Your task to perform on an android device: Go to battery settings Image 0: 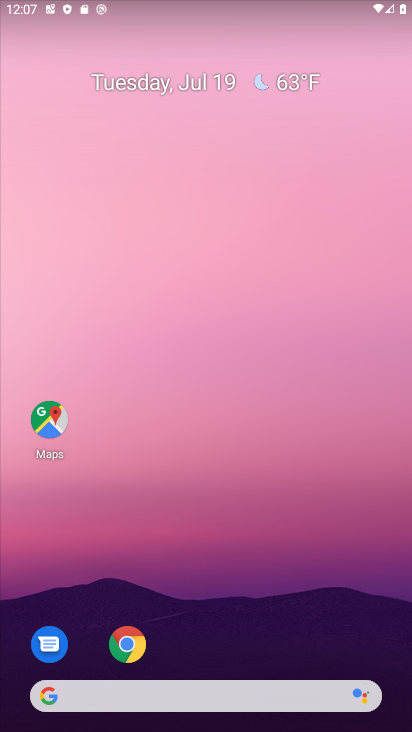
Step 0: drag from (251, 705) to (255, 323)
Your task to perform on an android device: Go to battery settings Image 1: 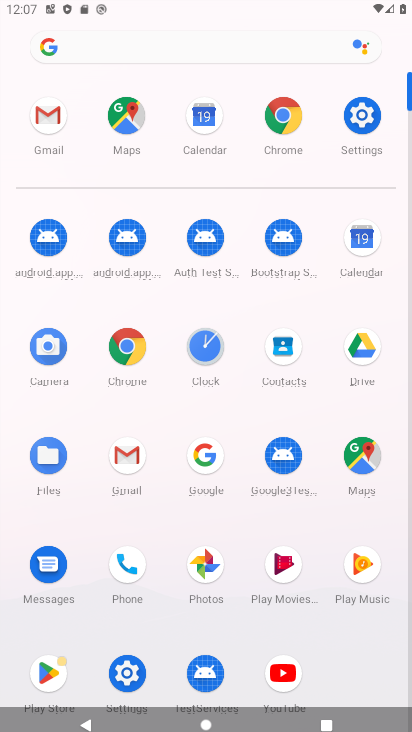
Step 1: click (366, 112)
Your task to perform on an android device: Go to battery settings Image 2: 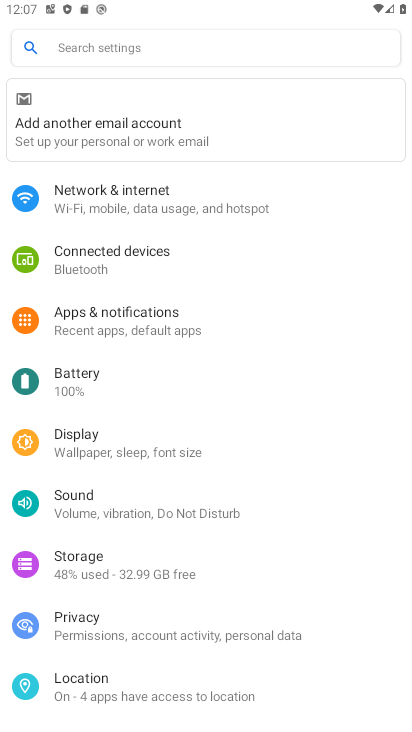
Step 2: click (76, 380)
Your task to perform on an android device: Go to battery settings Image 3: 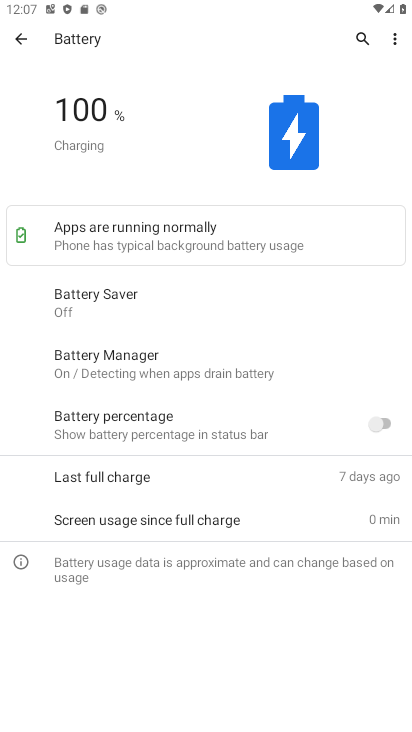
Step 3: task complete